Your task to perform on an android device: open app "Adobe Acrobat Reader" (install if not already installed) Image 0: 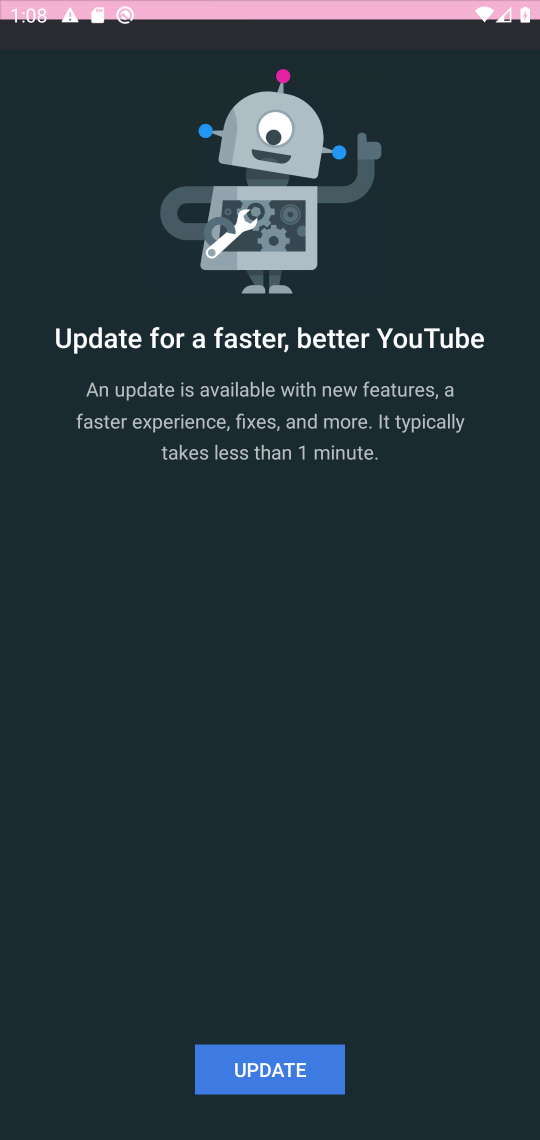
Step 0: press home button
Your task to perform on an android device: open app "Adobe Acrobat Reader" (install if not already installed) Image 1: 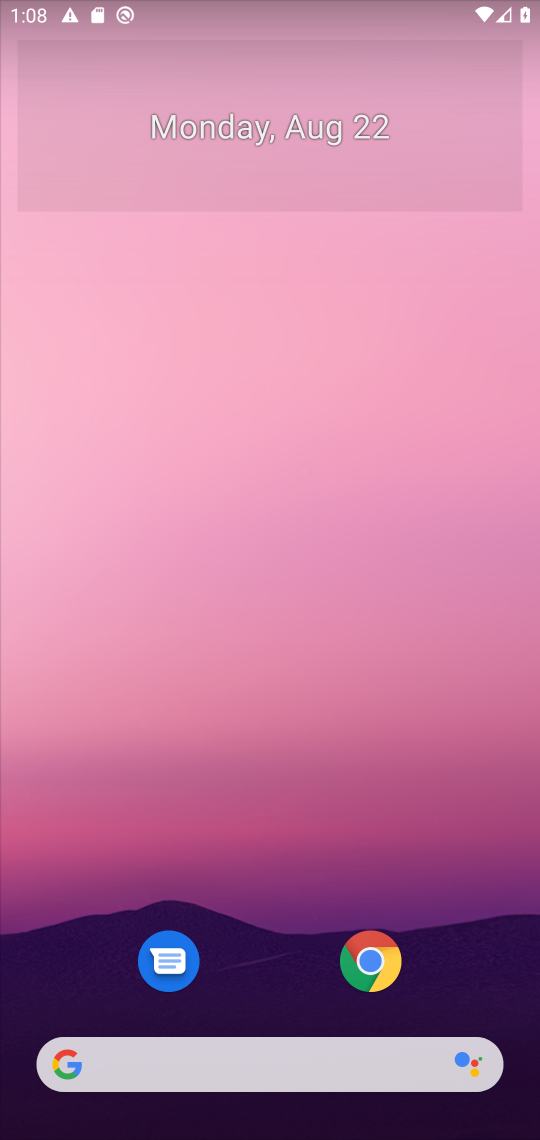
Step 1: drag from (499, 970) to (446, 239)
Your task to perform on an android device: open app "Adobe Acrobat Reader" (install if not already installed) Image 2: 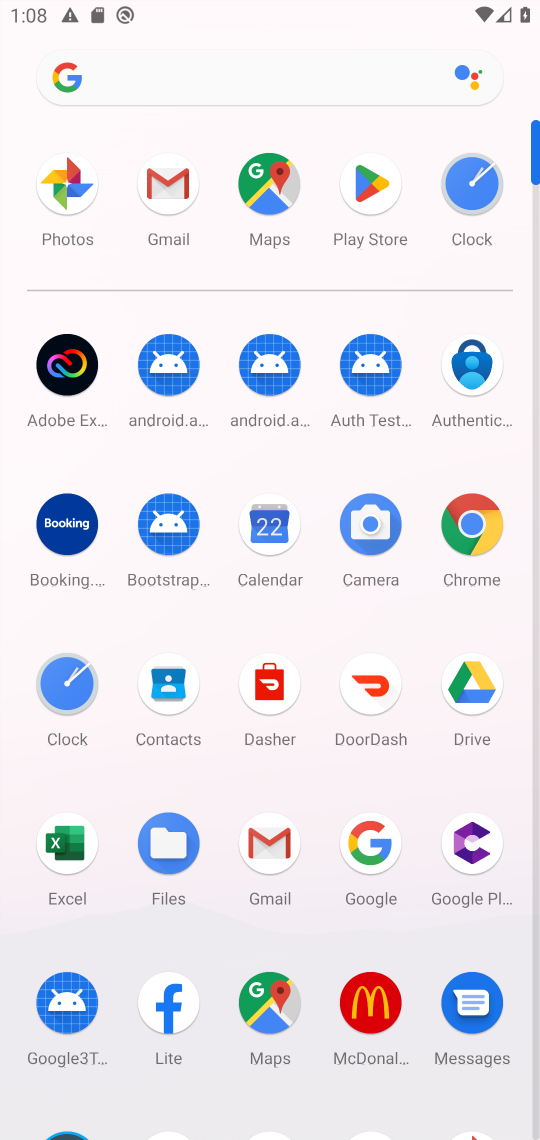
Step 2: click (370, 186)
Your task to perform on an android device: open app "Adobe Acrobat Reader" (install if not already installed) Image 3: 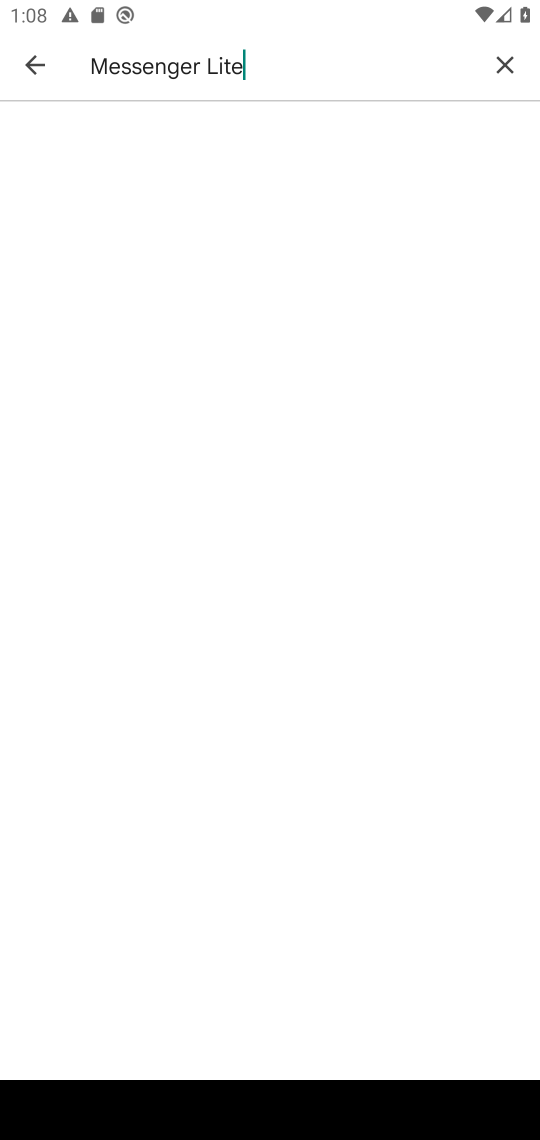
Step 3: press back button
Your task to perform on an android device: open app "Adobe Acrobat Reader" (install if not already installed) Image 4: 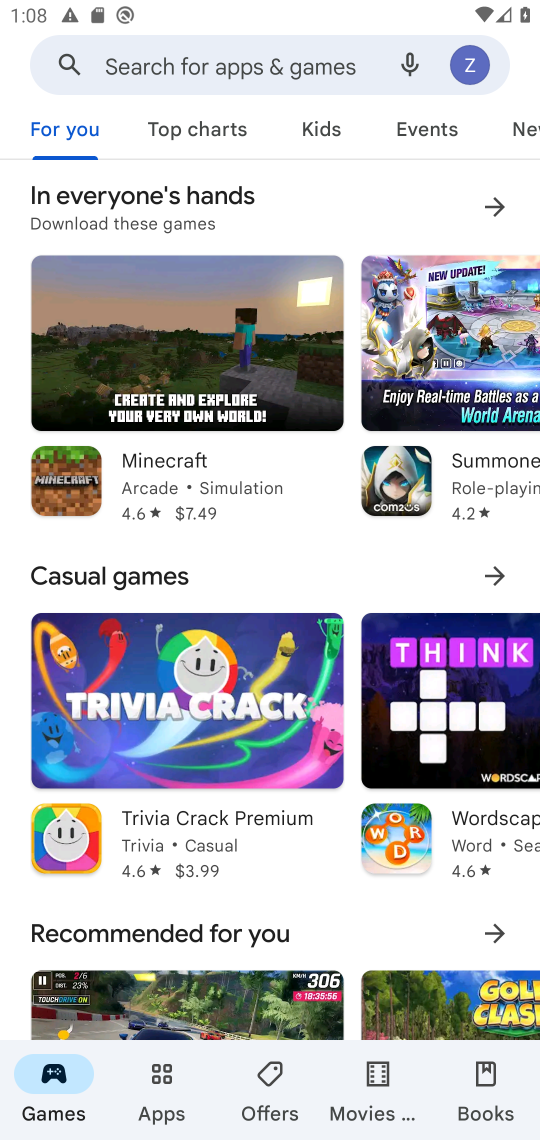
Step 4: click (275, 53)
Your task to perform on an android device: open app "Adobe Acrobat Reader" (install if not already installed) Image 5: 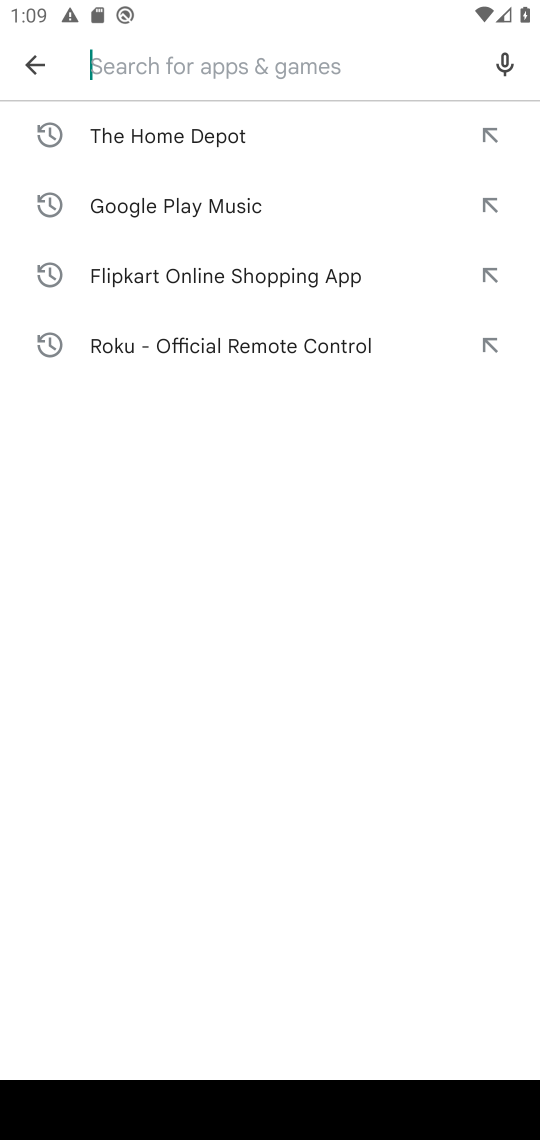
Step 5: press enter
Your task to perform on an android device: open app "Adobe Acrobat Reader" (install if not already installed) Image 6: 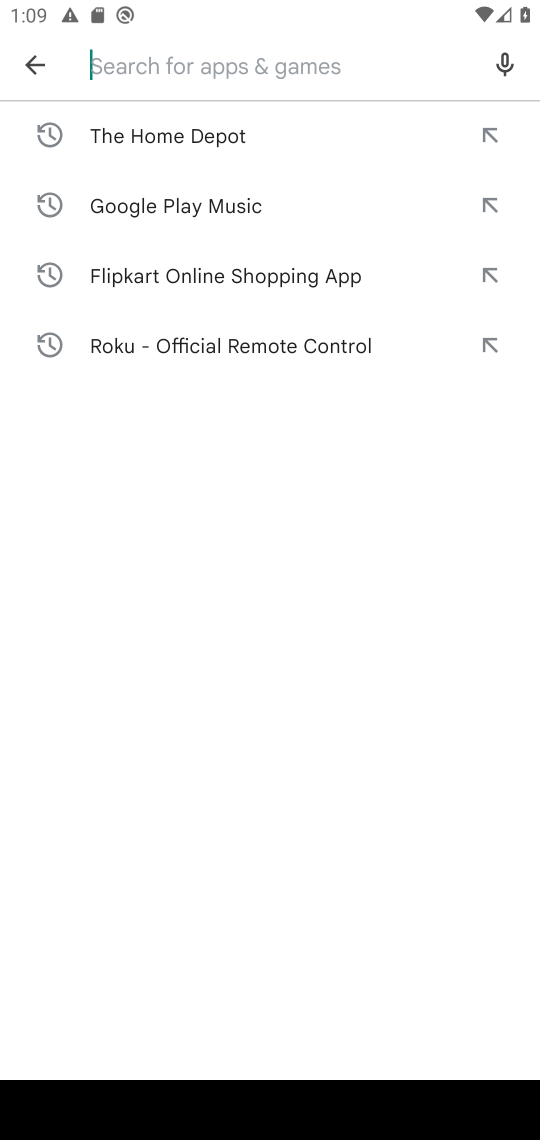
Step 6: type "Adobe Acrobat Reader"
Your task to perform on an android device: open app "Adobe Acrobat Reader" (install if not already installed) Image 7: 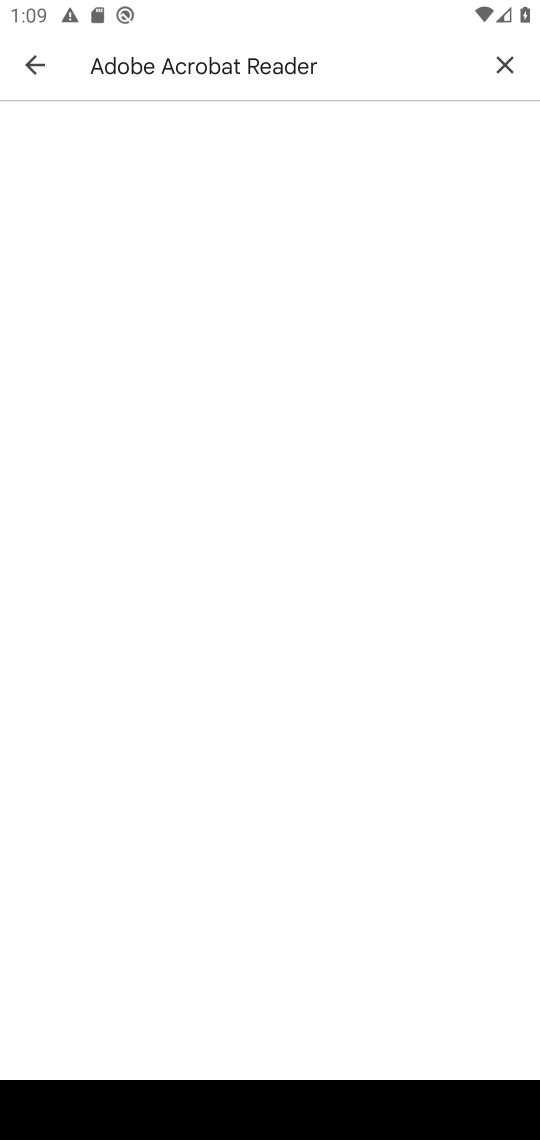
Step 7: task complete